Your task to perform on an android device: toggle location history Image 0: 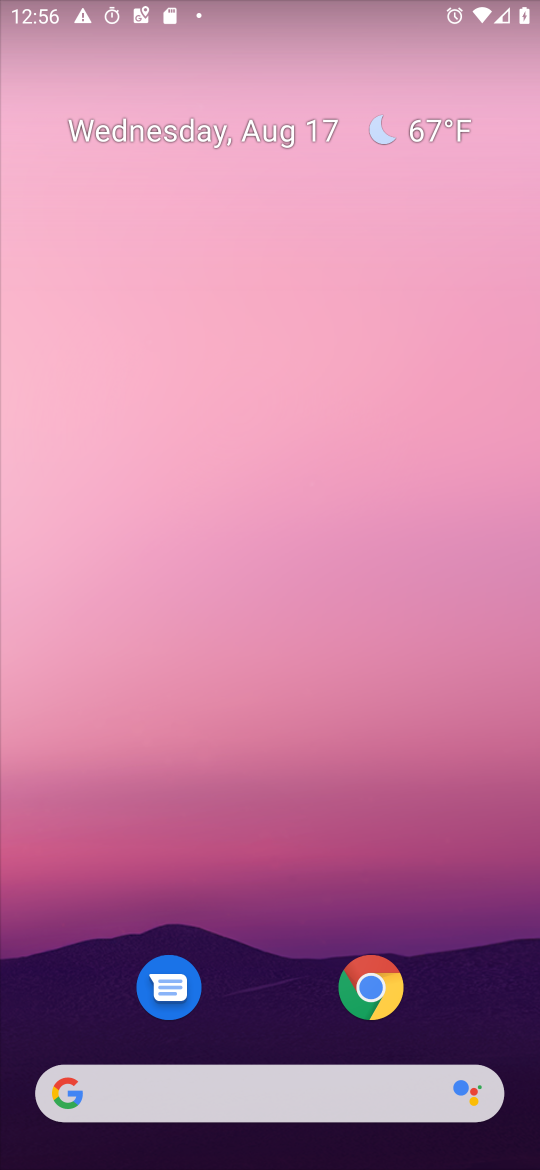
Step 0: drag from (22, 1108) to (279, 364)
Your task to perform on an android device: toggle location history Image 1: 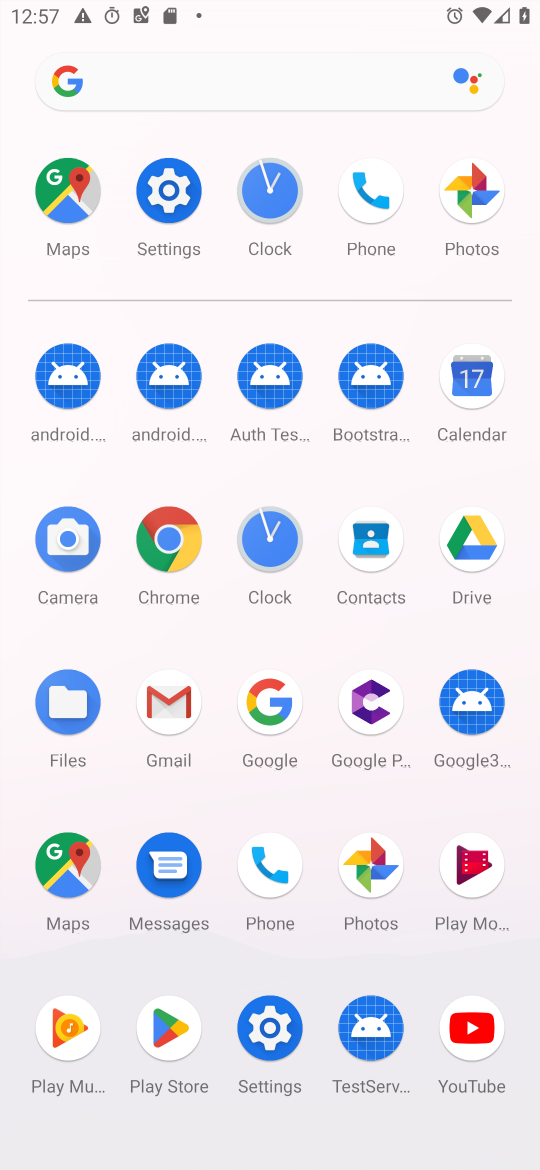
Step 1: click (270, 1029)
Your task to perform on an android device: toggle location history Image 2: 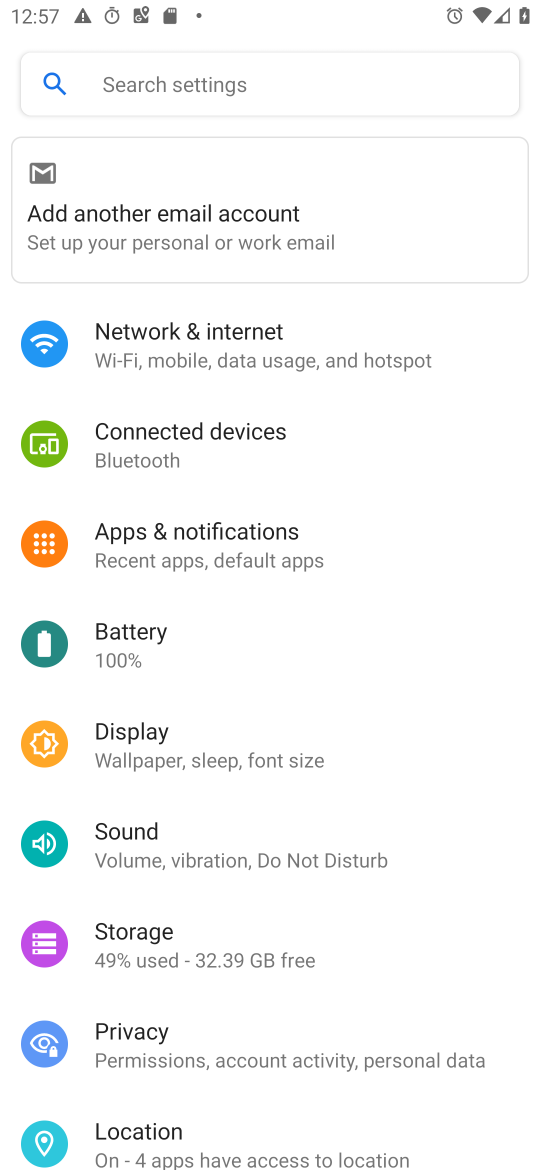
Step 2: click (220, 1143)
Your task to perform on an android device: toggle location history Image 3: 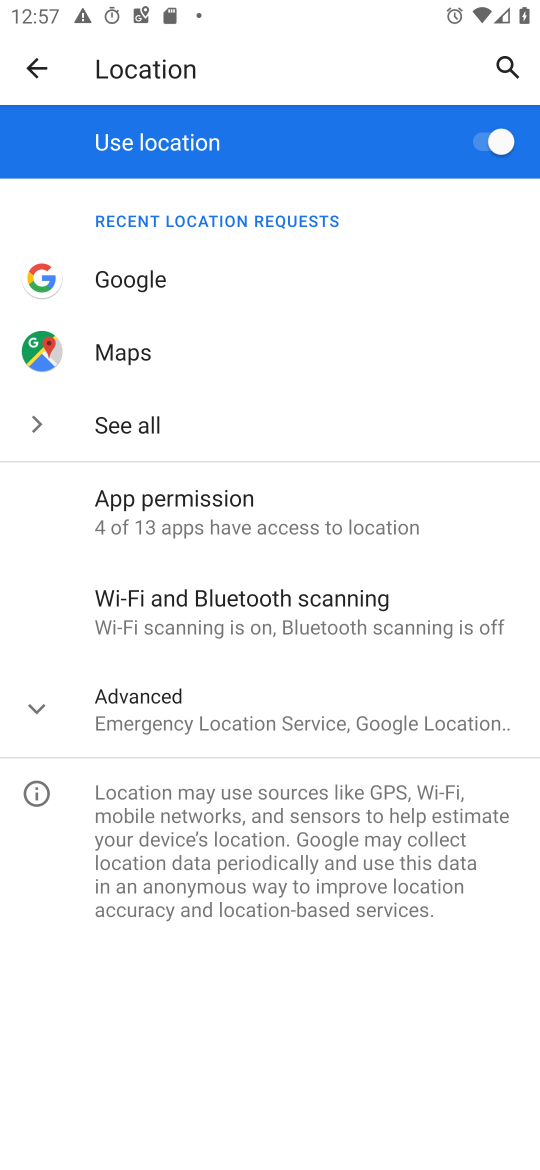
Step 3: click (189, 716)
Your task to perform on an android device: toggle location history Image 4: 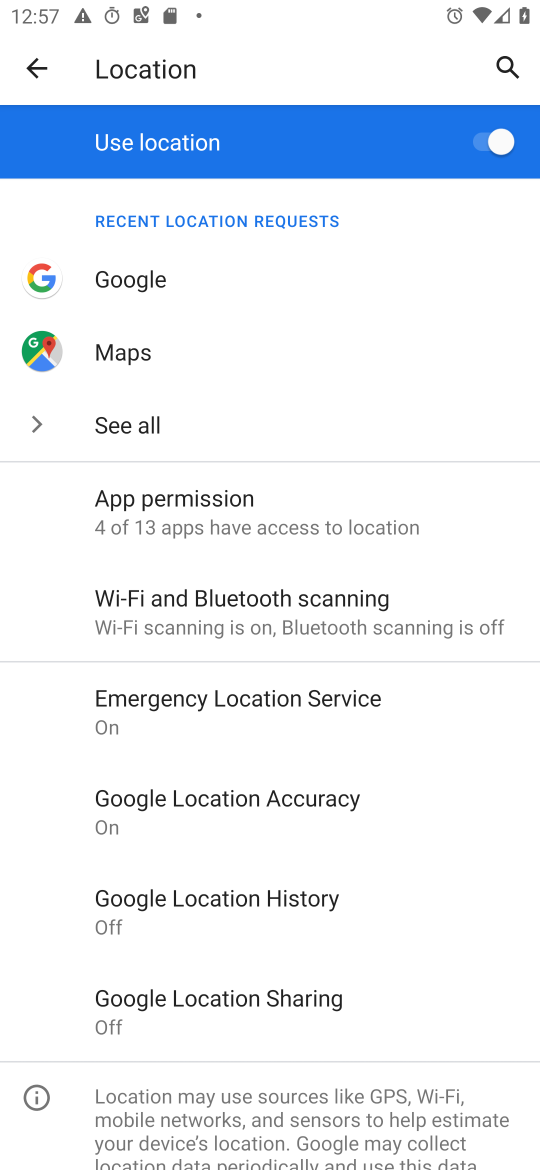
Step 4: click (197, 877)
Your task to perform on an android device: toggle location history Image 5: 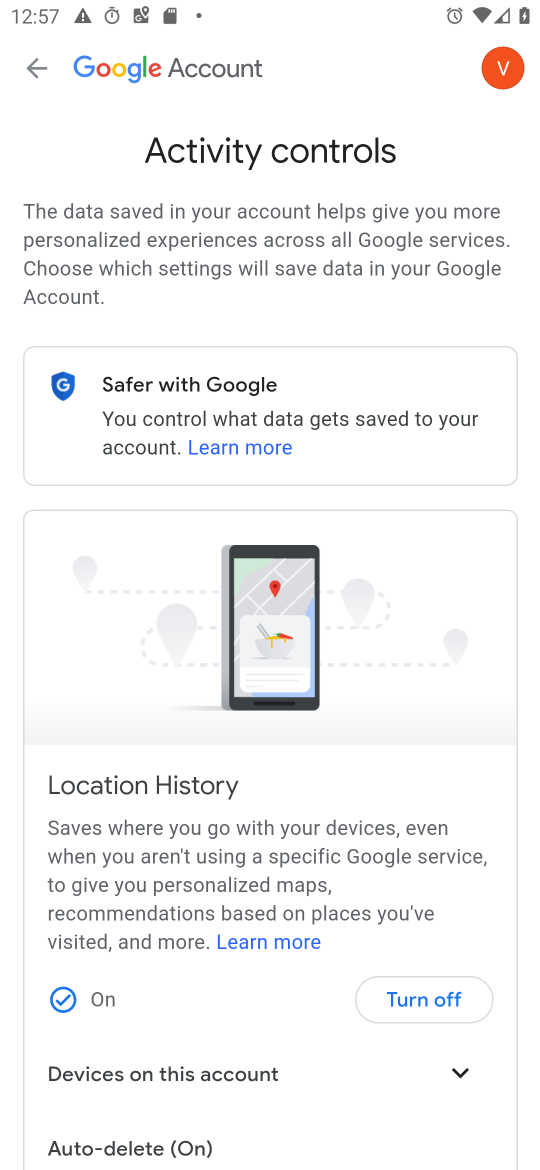
Step 5: click (411, 997)
Your task to perform on an android device: toggle location history Image 6: 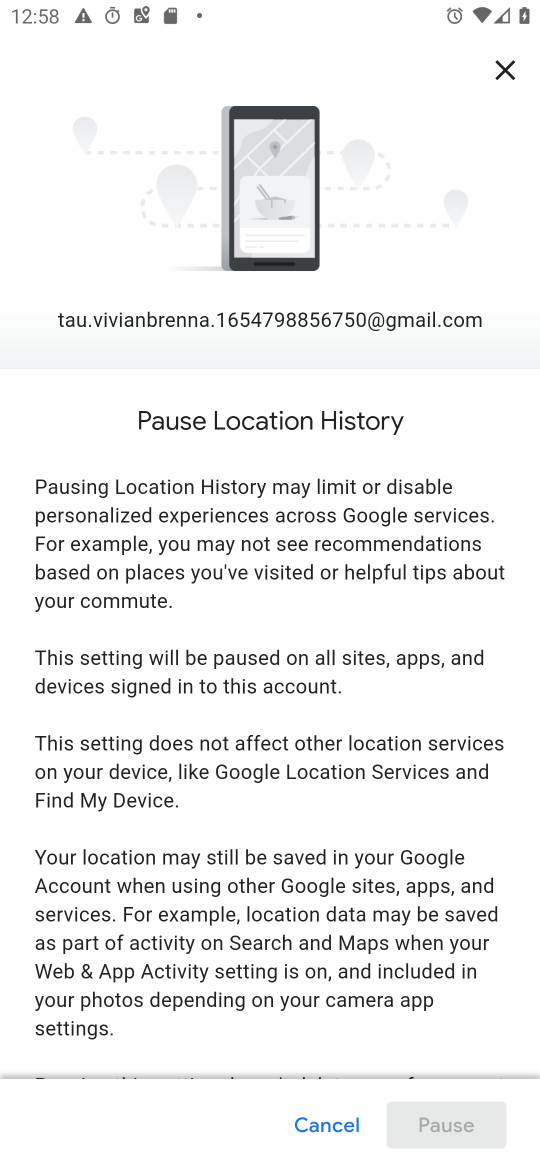
Step 6: task complete